Your task to perform on an android device: Open network settings Image 0: 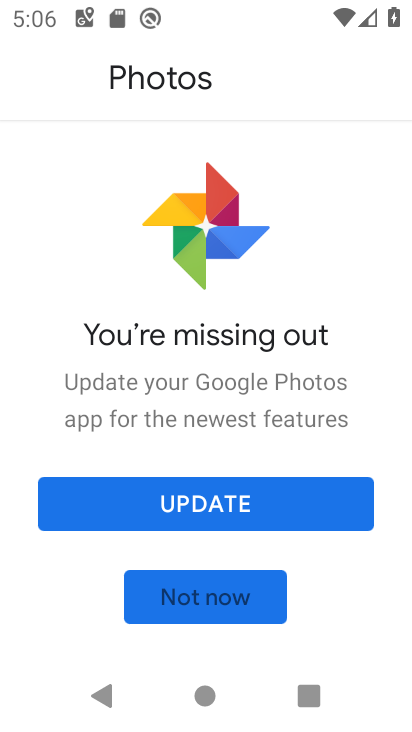
Step 0: press home button
Your task to perform on an android device: Open network settings Image 1: 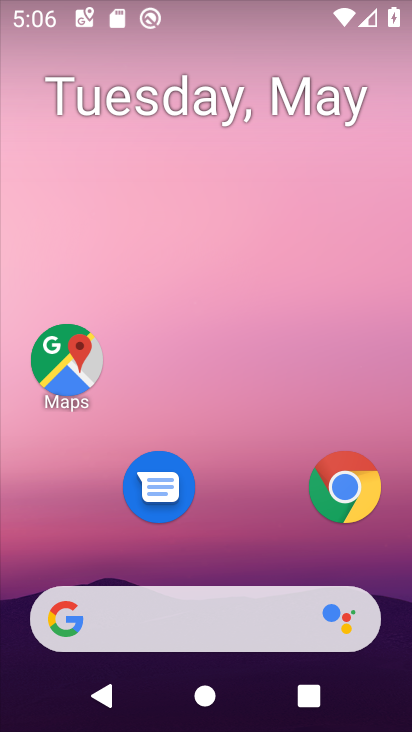
Step 1: drag from (268, 502) to (260, 142)
Your task to perform on an android device: Open network settings Image 2: 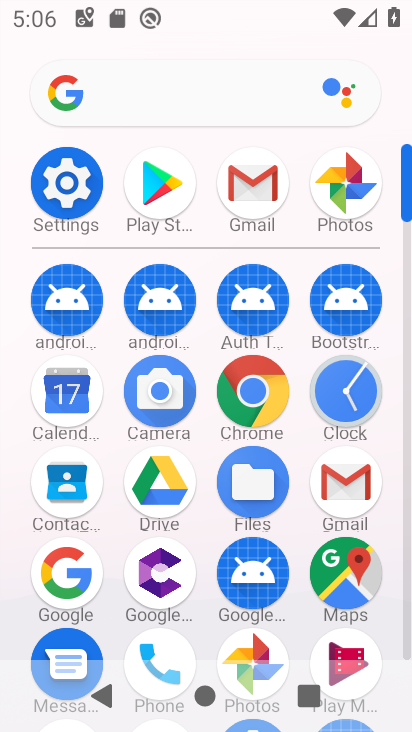
Step 2: click (64, 213)
Your task to perform on an android device: Open network settings Image 3: 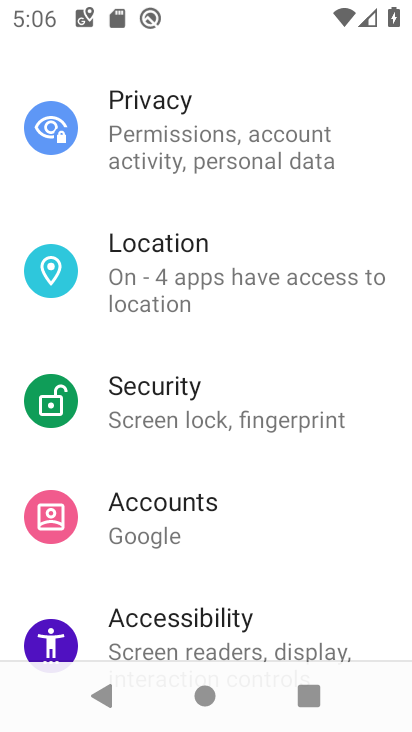
Step 3: drag from (192, 144) to (189, 627)
Your task to perform on an android device: Open network settings Image 4: 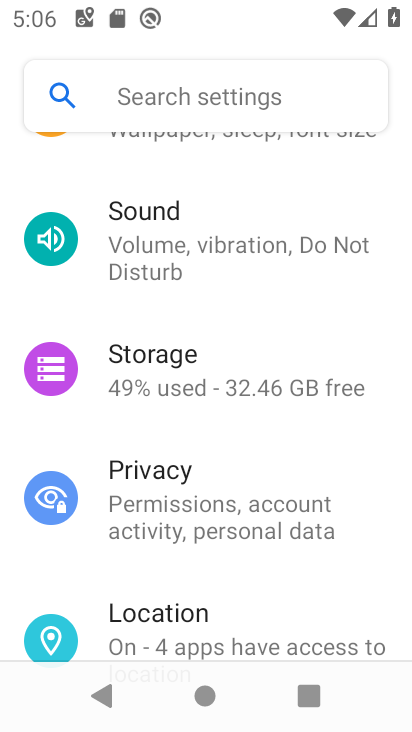
Step 4: drag from (186, 261) to (240, 567)
Your task to perform on an android device: Open network settings Image 5: 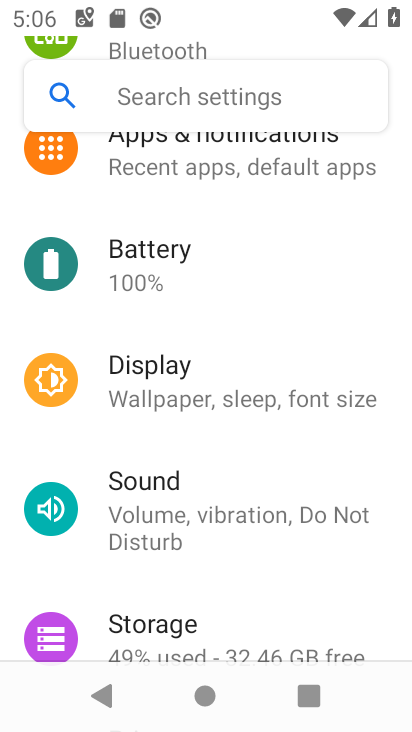
Step 5: drag from (239, 204) to (308, 705)
Your task to perform on an android device: Open network settings Image 6: 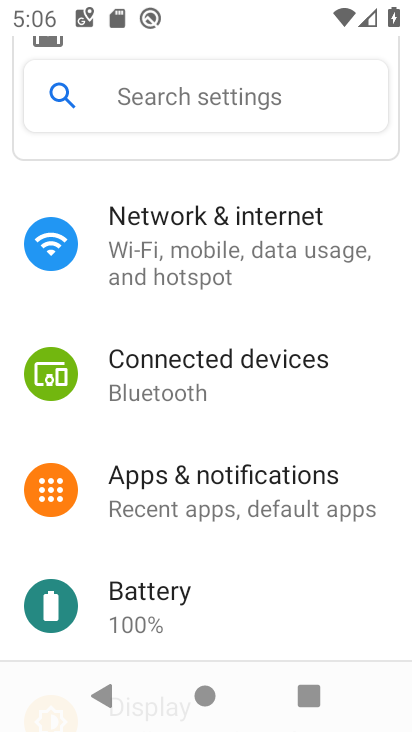
Step 6: click (225, 299)
Your task to perform on an android device: Open network settings Image 7: 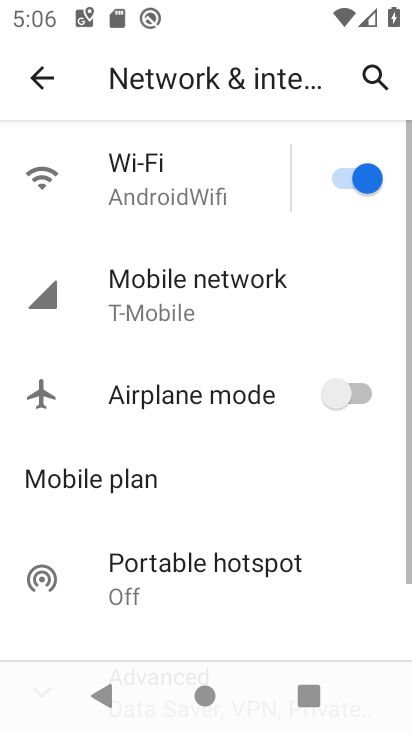
Step 7: task complete